Your task to perform on an android device: change text size in settings app Image 0: 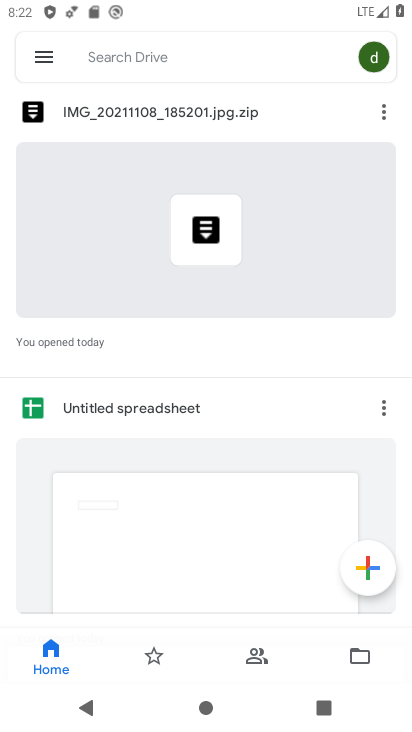
Step 0: press home button
Your task to perform on an android device: change text size in settings app Image 1: 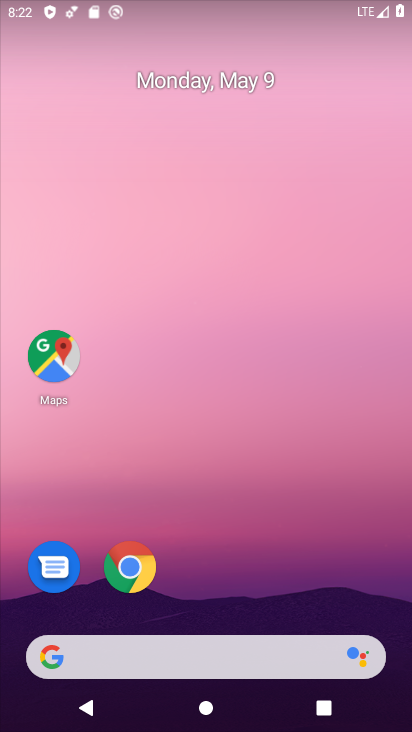
Step 1: drag from (362, 544) to (298, 142)
Your task to perform on an android device: change text size in settings app Image 2: 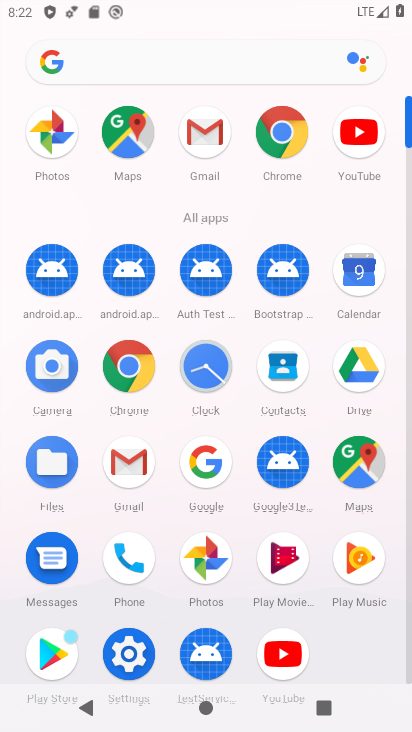
Step 2: click (116, 645)
Your task to perform on an android device: change text size in settings app Image 3: 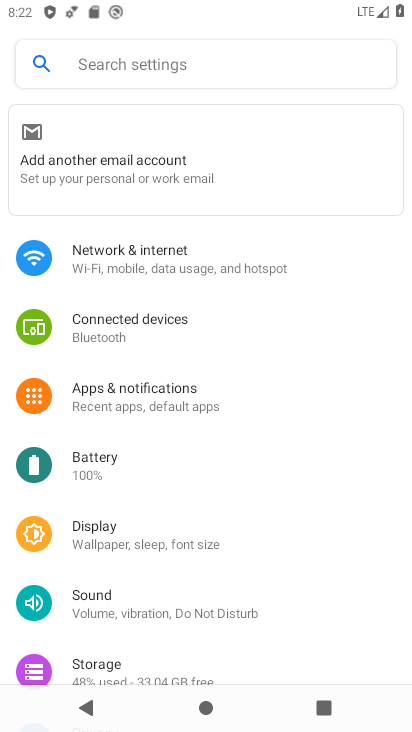
Step 3: click (117, 537)
Your task to perform on an android device: change text size in settings app Image 4: 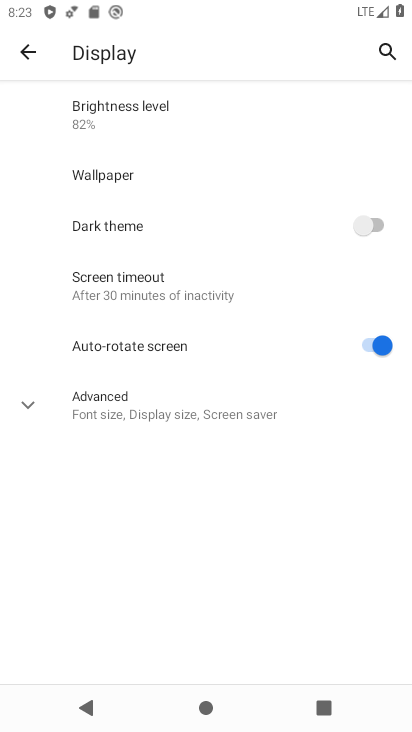
Step 4: click (131, 397)
Your task to perform on an android device: change text size in settings app Image 5: 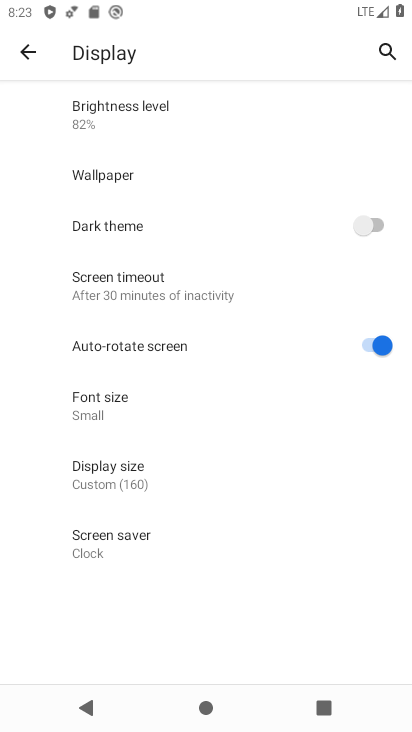
Step 5: click (117, 410)
Your task to perform on an android device: change text size in settings app Image 6: 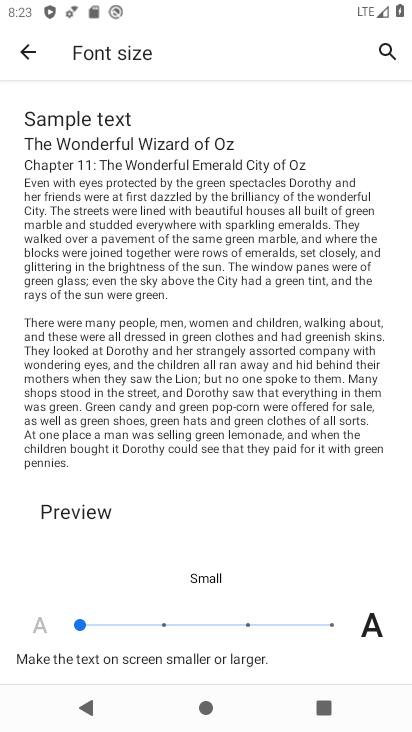
Step 6: click (164, 622)
Your task to perform on an android device: change text size in settings app Image 7: 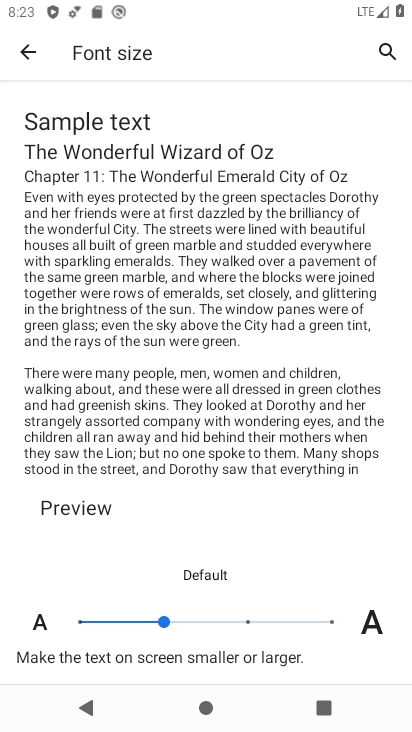
Step 7: task complete